Your task to perform on an android device: turn off javascript in the chrome app Image 0: 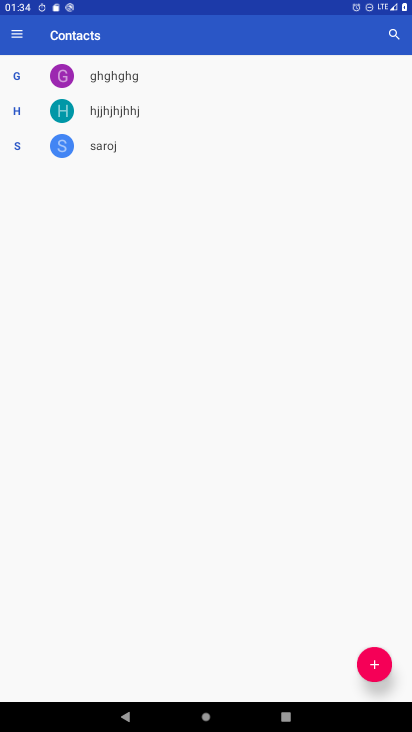
Step 0: press home button
Your task to perform on an android device: turn off javascript in the chrome app Image 1: 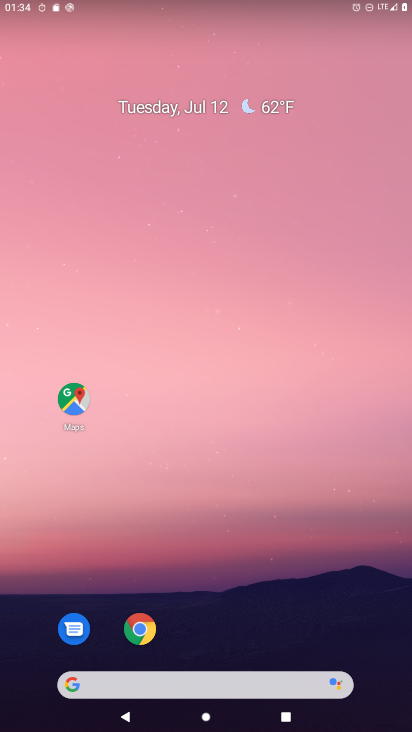
Step 1: drag from (211, 643) to (325, 57)
Your task to perform on an android device: turn off javascript in the chrome app Image 2: 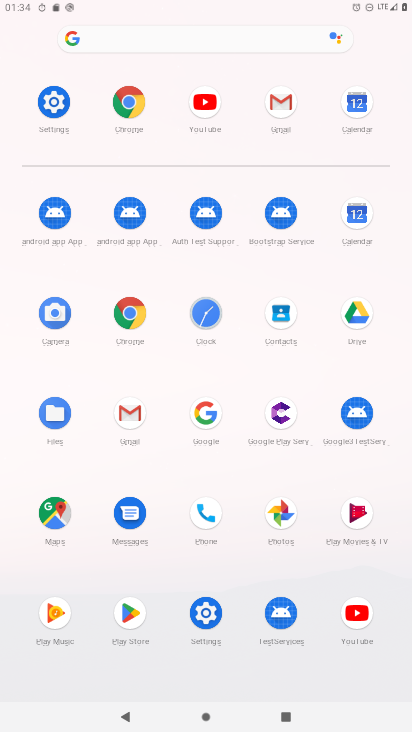
Step 2: click (124, 315)
Your task to perform on an android device: turn off javascript in the chrome app Image 3: 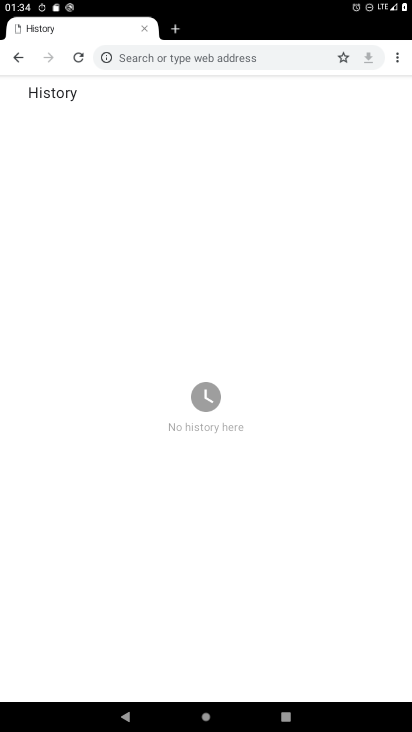
Step 3: drag from (406, 55) to (294, 260)
Your task to perform on an android device: turn off javascript in the chrome app Image 4: 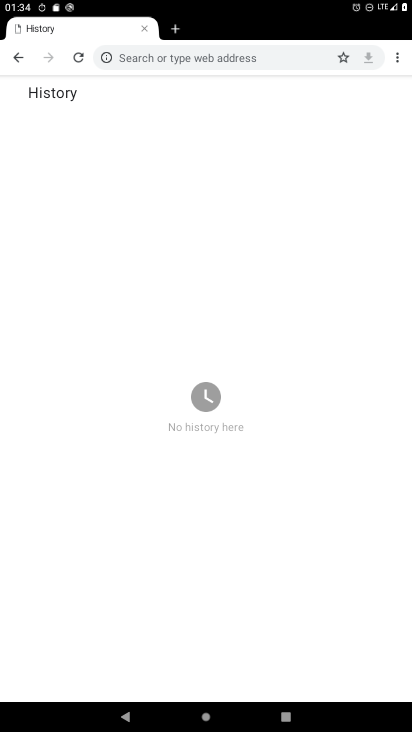
Step 4: click (292, 261)
Your task to perform on an android device: turn off javascript in the chrome app Image 5: 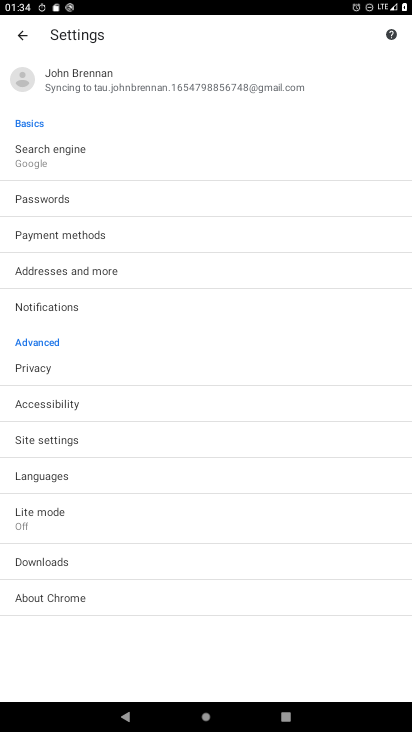
Step 5: click (48, 434)
Your task to perform on an android device: turn off javascript in the chrome app Image 6: 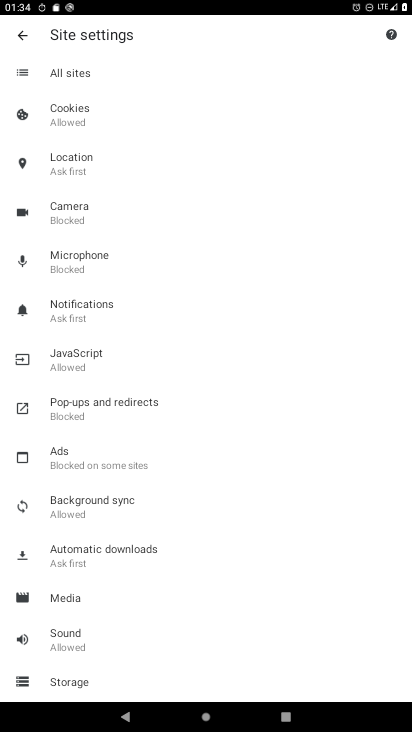
Step 6: click (75, 345)
Your task to perform on an android device: turn off javascript in the chrome app Image 7: 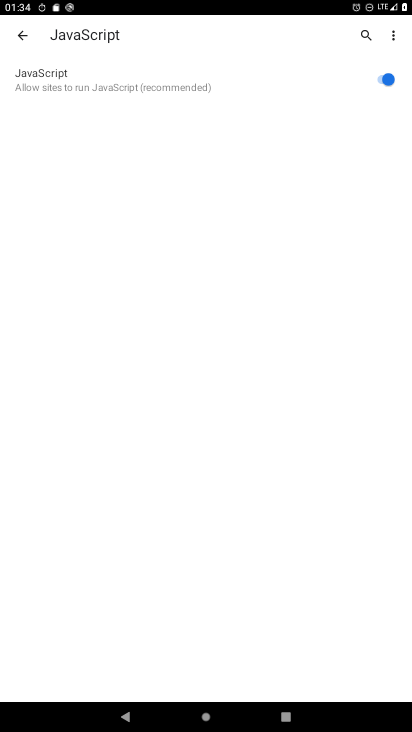
Step 7: click (376, 77)
Your task to perform on an android device: turn off javascript in the chrome app Image 8: 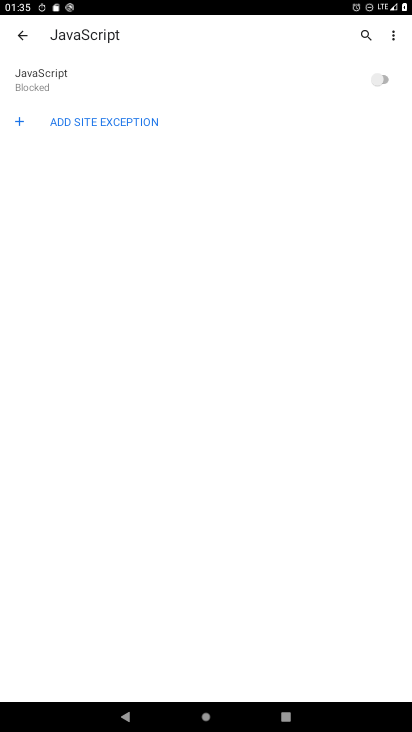
Step 8: task complete